Your task to perform on an android device: check android version Image 0: 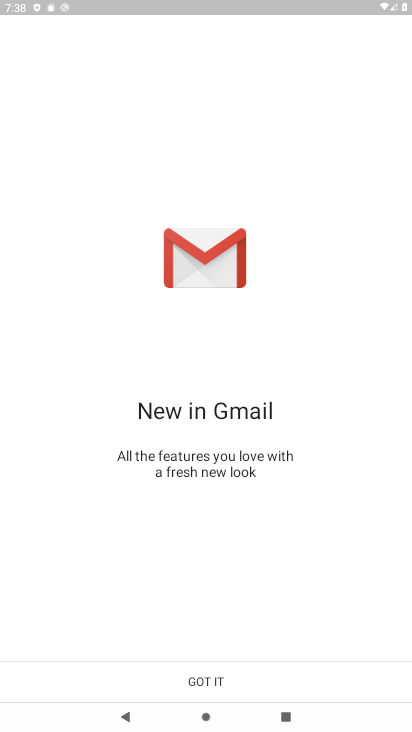
Step 0: press home button
Your task to perform on an android device: check android version Image 1: 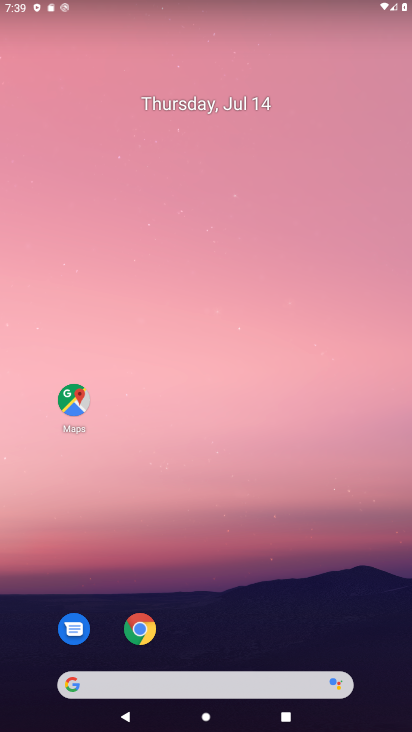
Step 1: drag from (8, 718) to (293, 68)
Your task to perform on an android device: check android version Image 2: 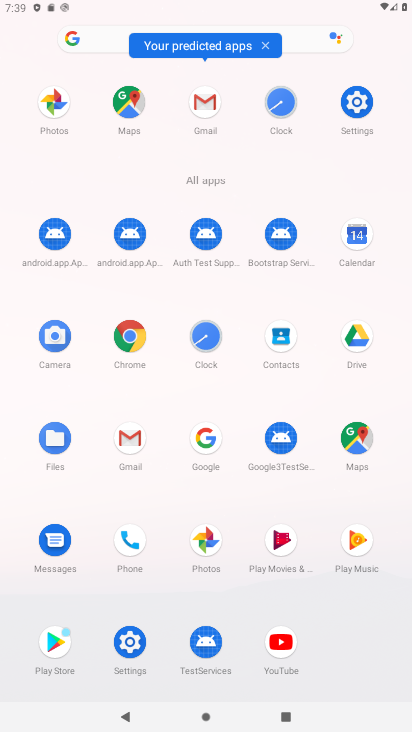
Step 2: click (365, 112)
Your task to perform on an android device: check android version Image 3: 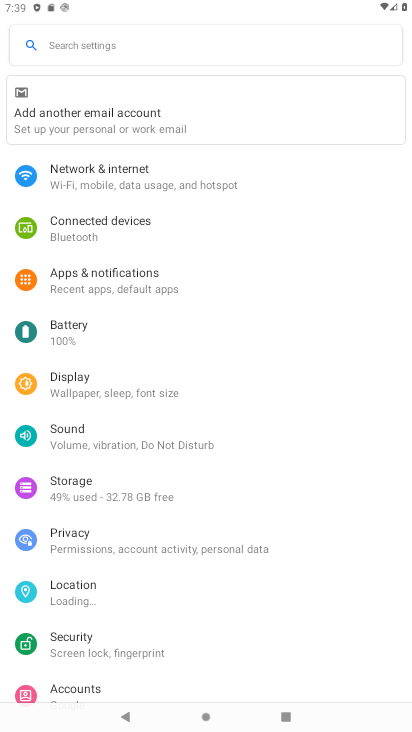
Step 3: drag from (118, 642) to (298, 131)
Your task to perform on an android device: check android version Image 4: 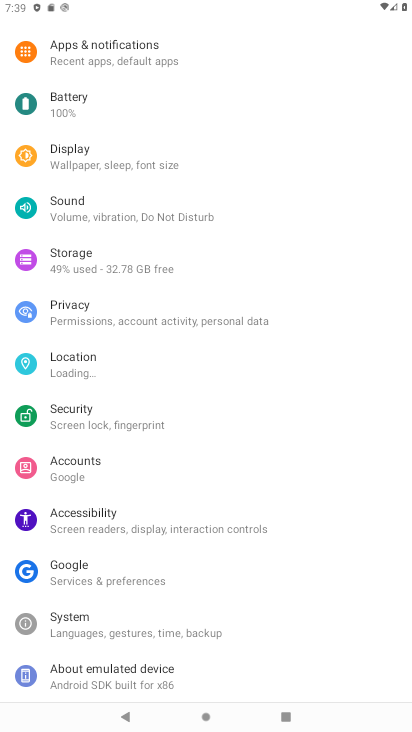
Step 4: click (113, 684)
Your task to perform on an android device: check android version Image 5: 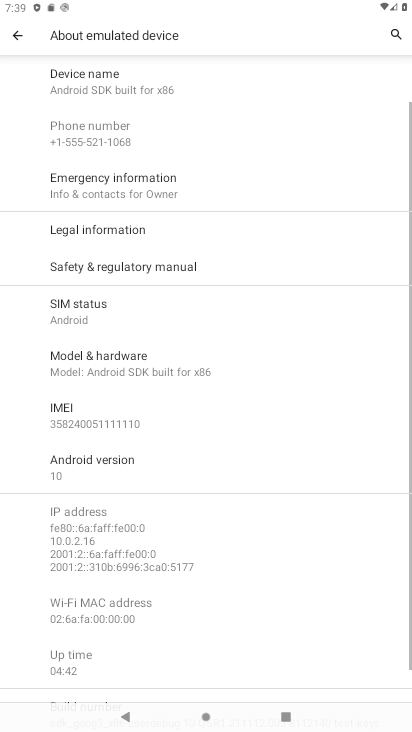
Step 5: click (131, 454)
Your task to perform on an android device: check android version Image 6: 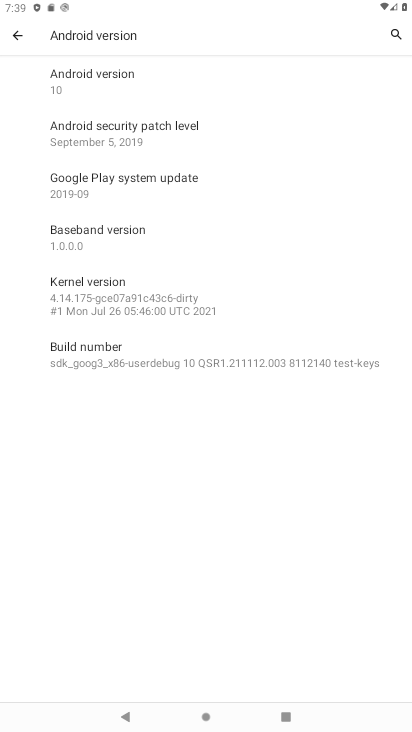
Step 6: task complete